Your task to perform on an android device: add a contact in the contacts app Image 0: 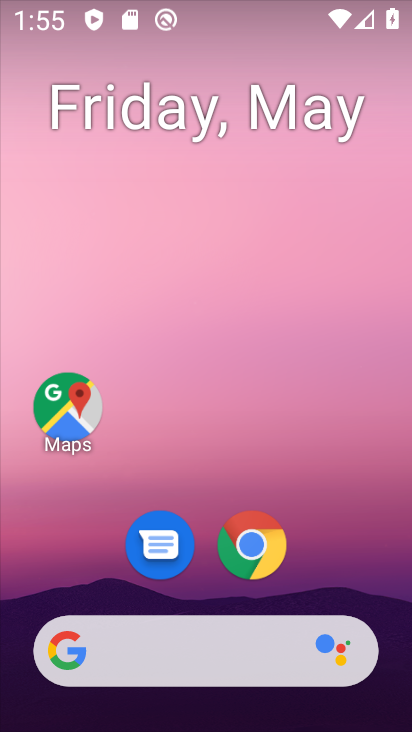
Step 0: drag from (337, 549) to (355, 30)
Your task to perform on an android device: add a contact in the contacts app Image 1: 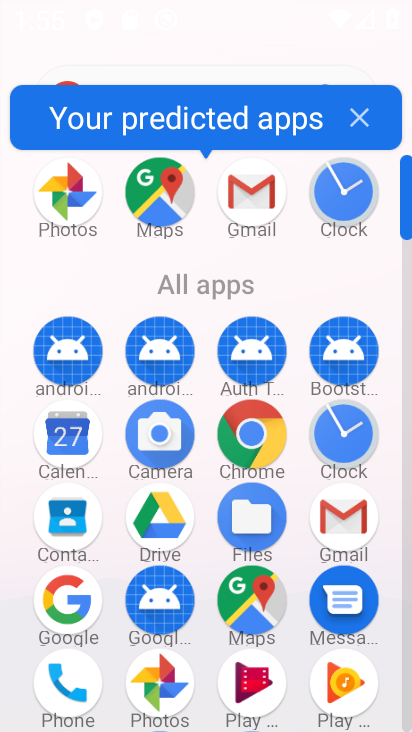
Step 1: drag from (277, 609) to (263, 258)
Your task to perform on an android device: add a contact in the contacts app Image 2: 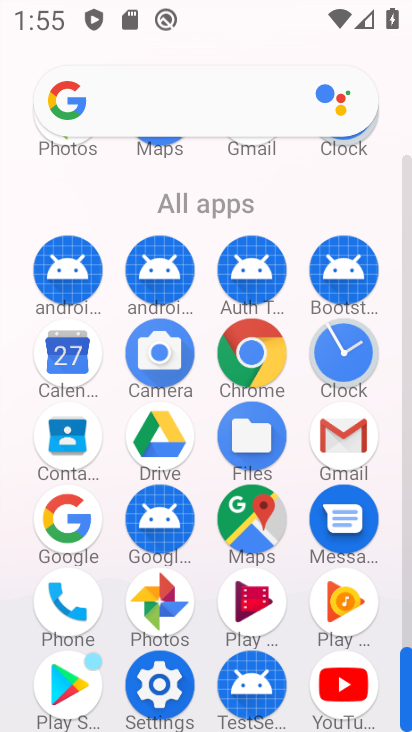
Step 2: drag from (68, 452) to (108, 244)
Your task to perform on an android device: add a contact in the contacts app Image 3: 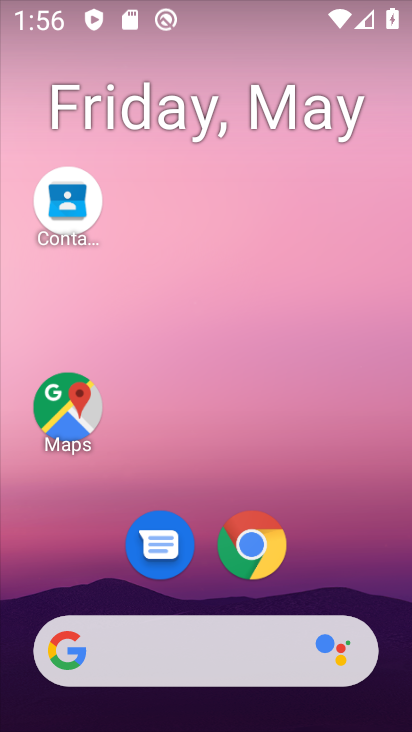
Step 3: click (76, 199)
Your task to perform on an android device: add a contact in the contacts app Image 4: 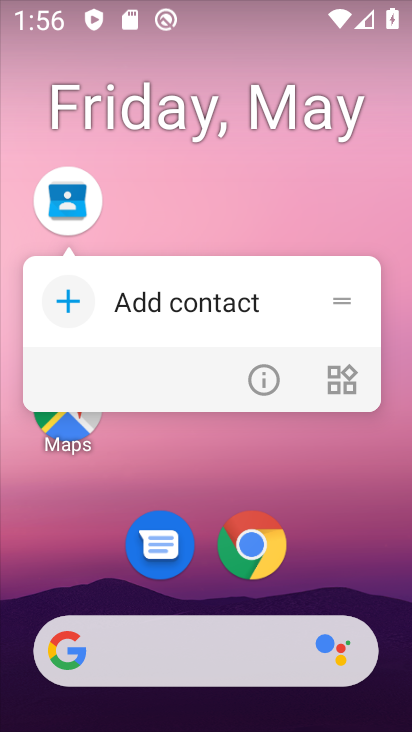
Step 4: click (66, 199)
Your task to perform on an android device: add a contact in the contacts app Image 5: 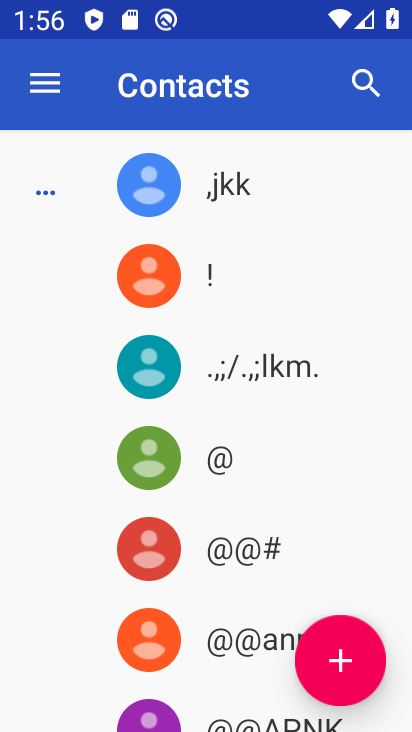
Step 5: click (333, 656)
Your task to perform on an android device: add a contact in the contacts app Image 6: 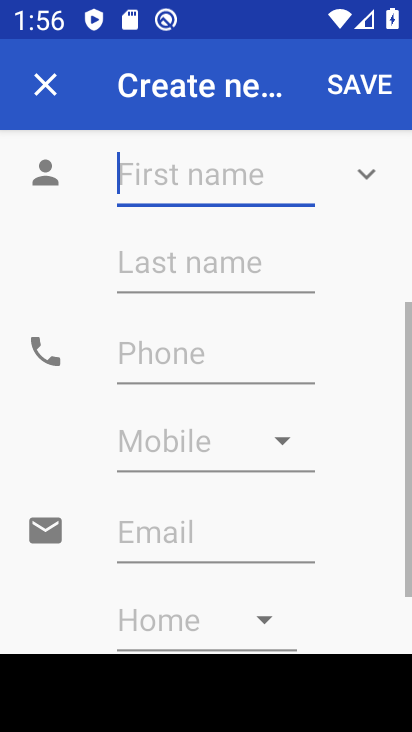
Step 6: click (248, 176)
Your task to perform on an android device: add a contact in the contacts app Image 7: 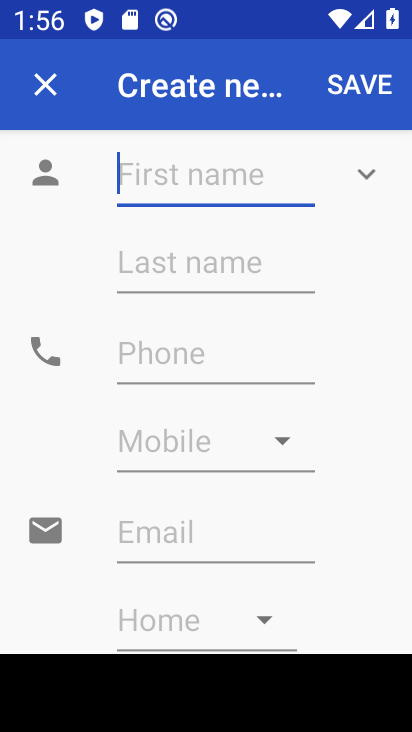
Step 7: type "mps"
Your task to perform on an android device: add a contact in the contacts app Image 8: 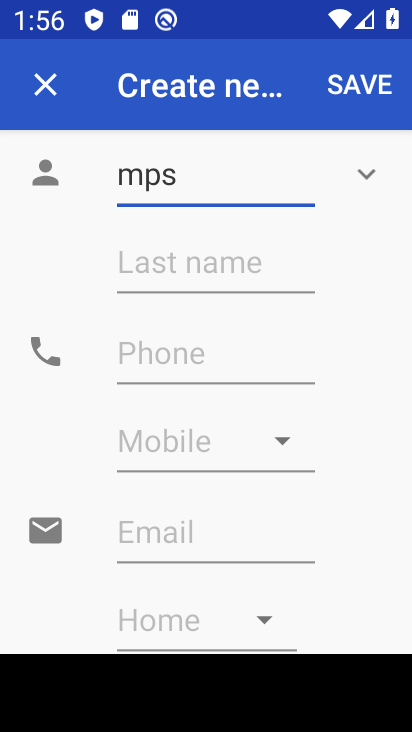
Step 8: click (229, 351)
Your task to perform on an android device: add a contact in the contacts app Image 9: 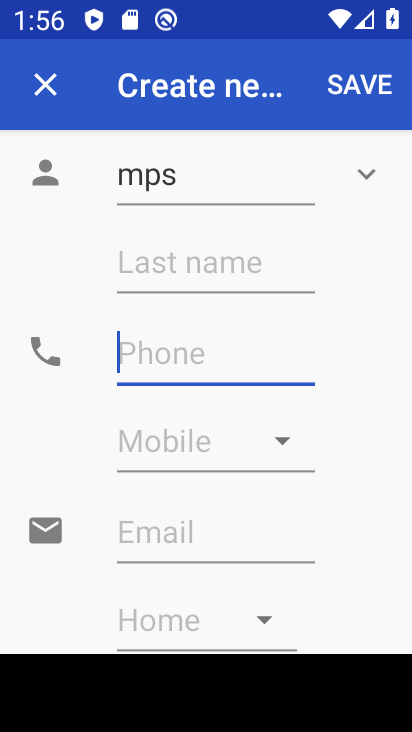
Step 9: type "88776655433"
Your task to perform on an android device: add a contact in the contacts app Image 10: 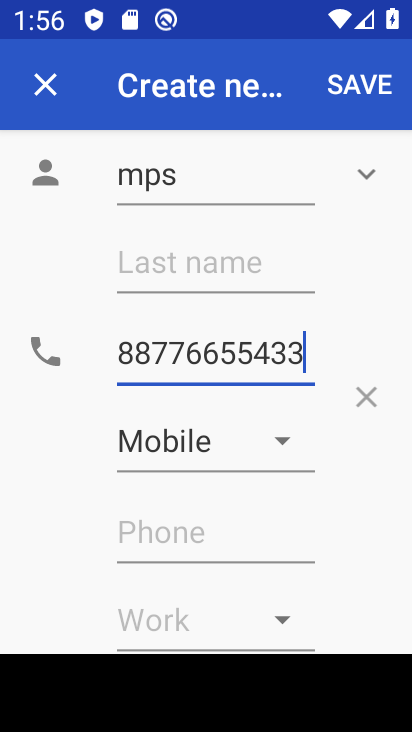
Step 10: click (361, 78)
Your task to perform on an android device: add a contact in the contacts app Image 11: 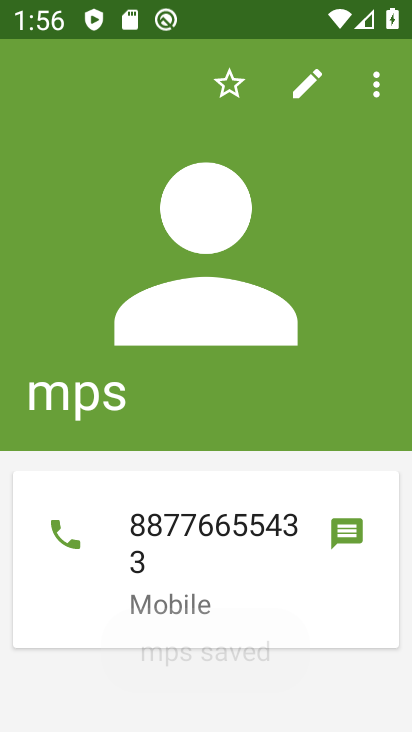
Step 11: task complete